Your task to perform on an android device: Go to display settings Image 0: 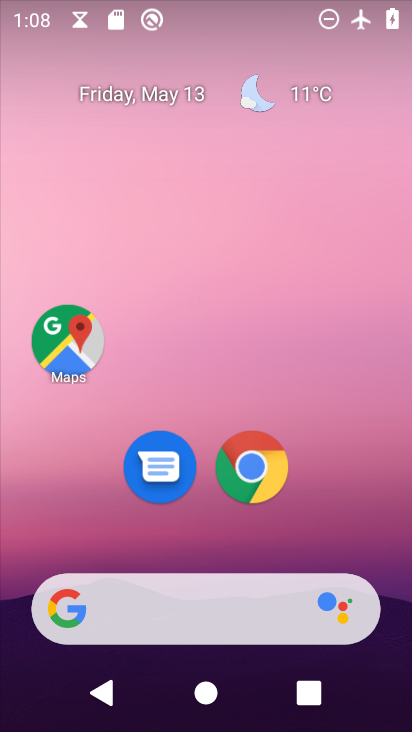
Step 0: drag from (301, 330) to (205, 76)
Your task to perform on an android device: Go to display settings Image 1: 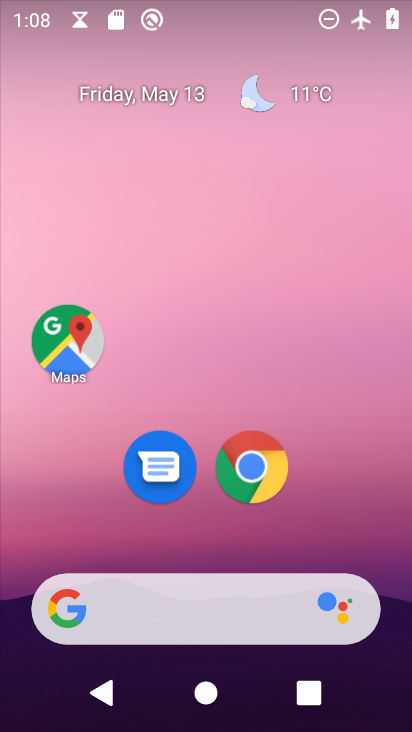
Step 1: drag from (337, 515) to (231, 9)
Your task to perform on an android device: Go to display settings Image 2: 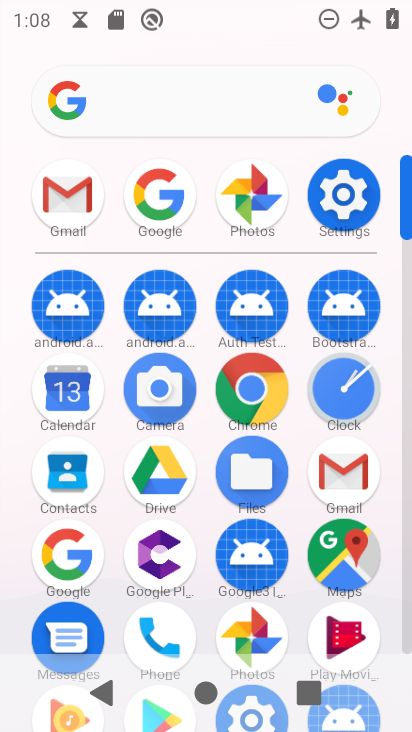
Step 2: click (327, 199)
Your task to perform on an android device: Go to display settings Image 3: 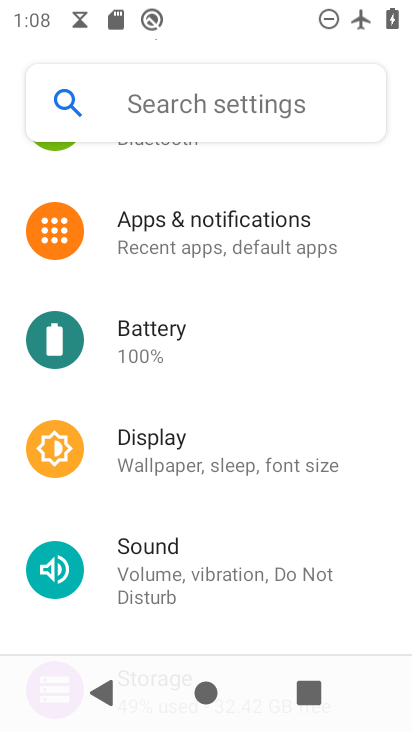
Step 3: click (215, 473)
Your task to perform on an android device: Go to display settings Image 4: 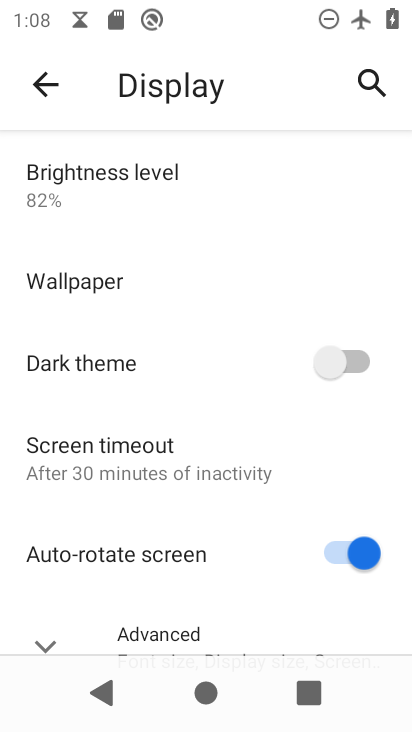
Step 4: task complete